Your task to perform on an android device: Open my contact list Image 0: 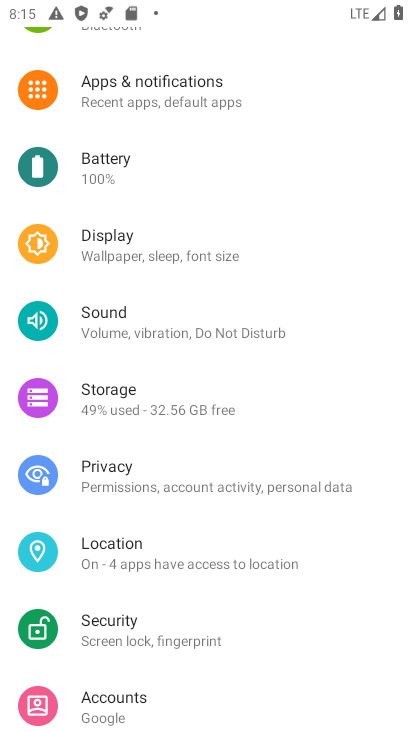
Step 0: press home button
Your task to perform on an android device: Open my contact list Image 1: 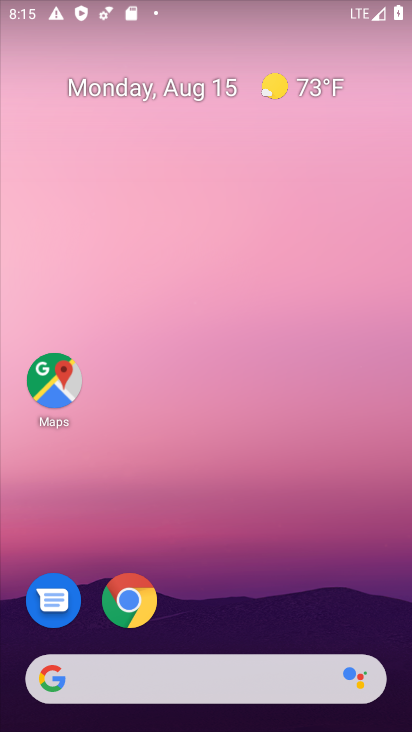
Step 1: drag from (202, 628) to (239, 82)
Your task to perform on an android device: Open my contact list Image 2: 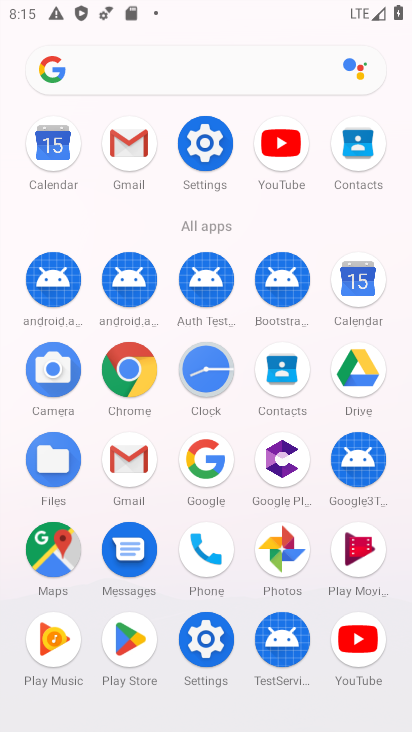
Step 2: click (277, 373)
Your task to perform on an android device: Open my contact list Image 3: 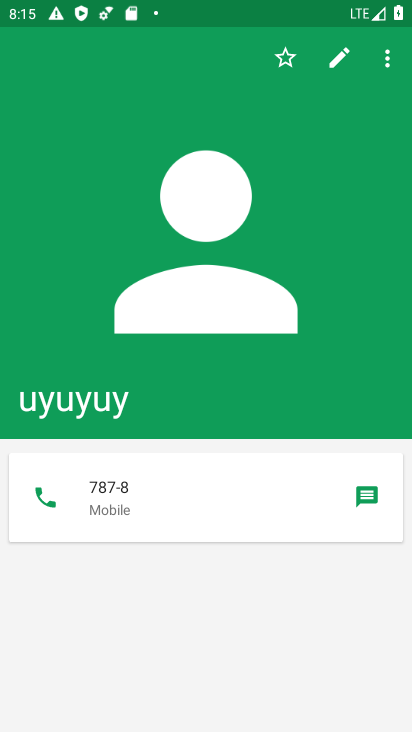
Step 3: task complete